Your task to perform on an android device: Search for sushi restaurants on Maps Image 0: 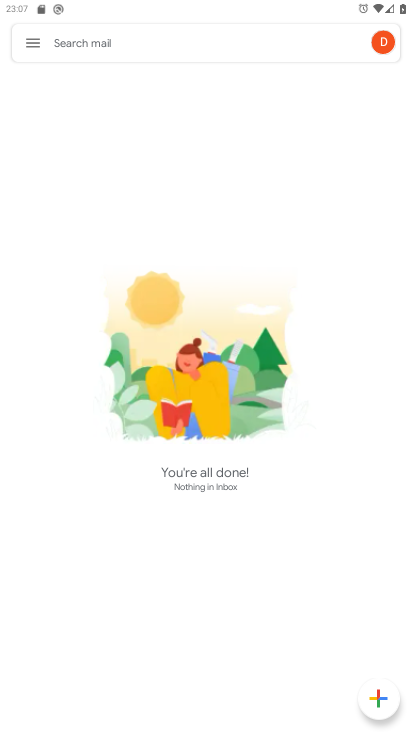
Step 0: press home button
Your task to perform on an android device: Search for sushi restaurants on Maps Image 1: 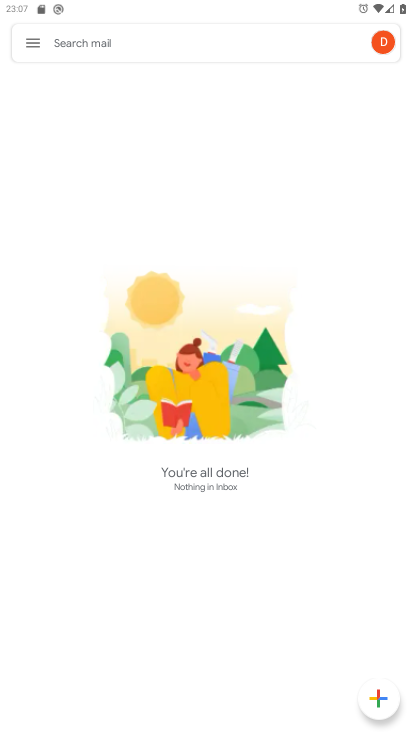
Step 1: press home button
Your task to perform on an android device: Search for sushi restaurants on Maps Image 2: 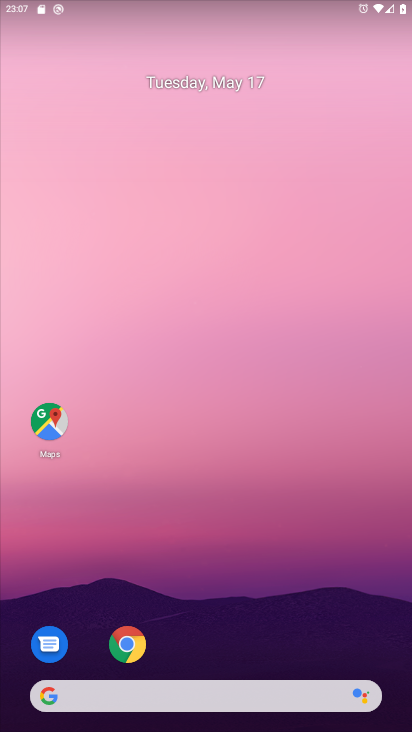
Step 2: click (47, 416)
Your task to perform on an android device: Search for sushi restaurants on Maps Image 3: 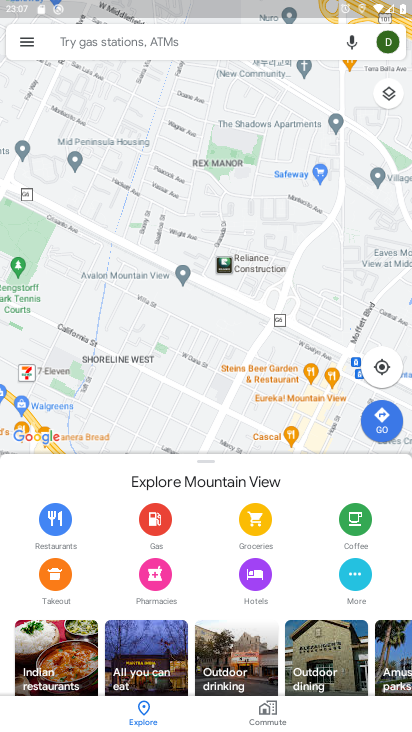
Step 3: click (145, 31)
Your task to perform on an android device: Search for sushi restaurants on Maps Image 4: 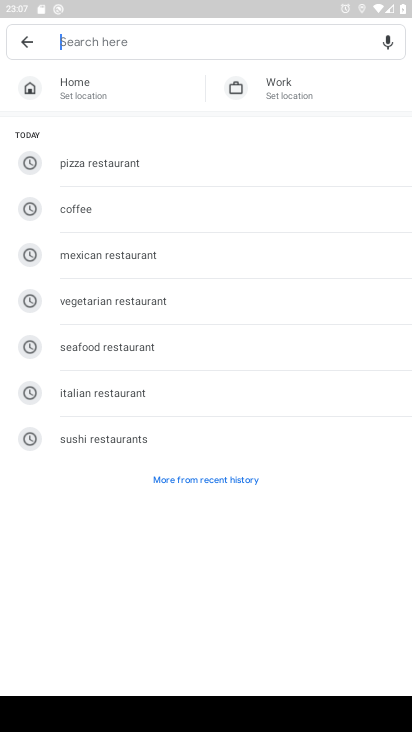
Step 4: click (117, 434)
Your task to perform on an android device: Search for sushi restaurants on Maps Image 5: 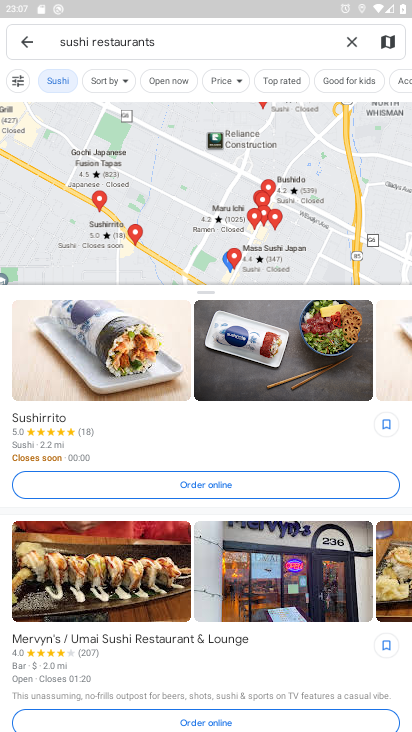
Step 5: task complete